Your task to perform on an android device: turn off sleep mode Image 0: 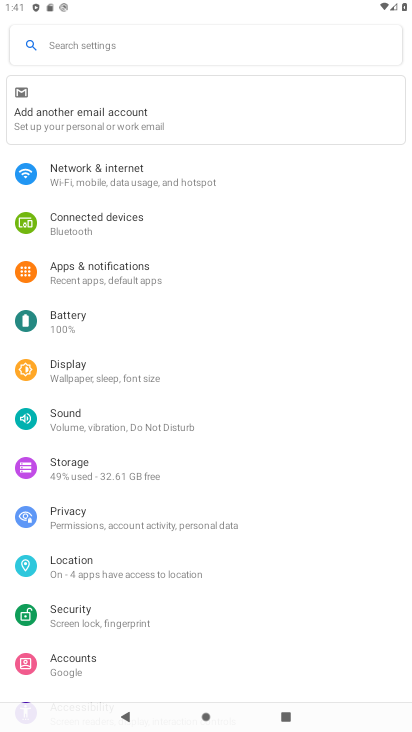
Step 0: drag from (190, 629) to (211, 195)
Your task to perform on an android device: turn off sleep mode Image 1: 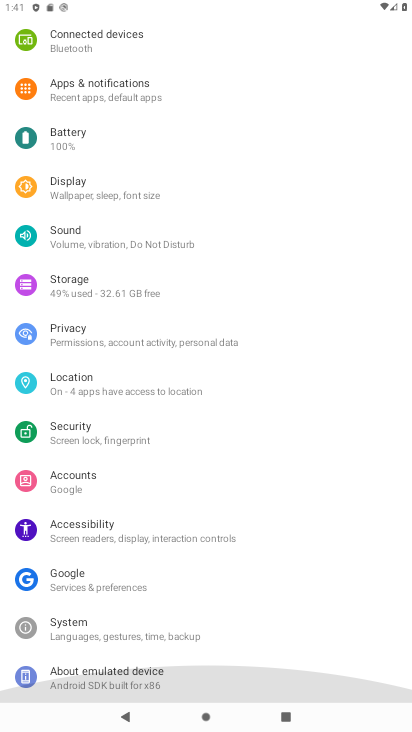
Step 1: drag from (211, 225) to (265, 706)
Your task to perform on an android device: turn off sleep mode Image 2: 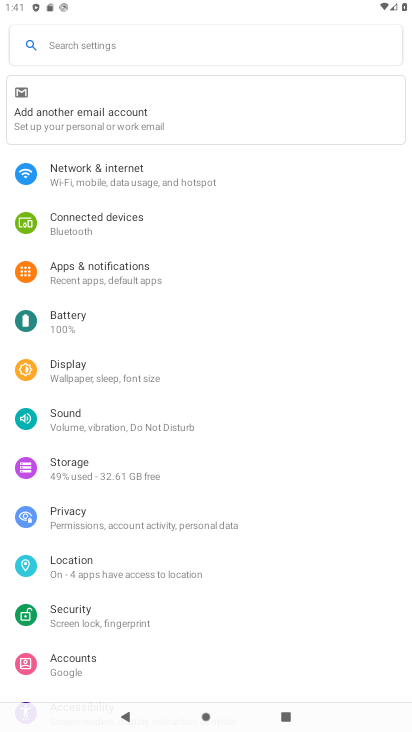
Step 2: drag from (153, 634) to (207, 312)
Your task to perform on an android device: turn off sleep mode Image 3: 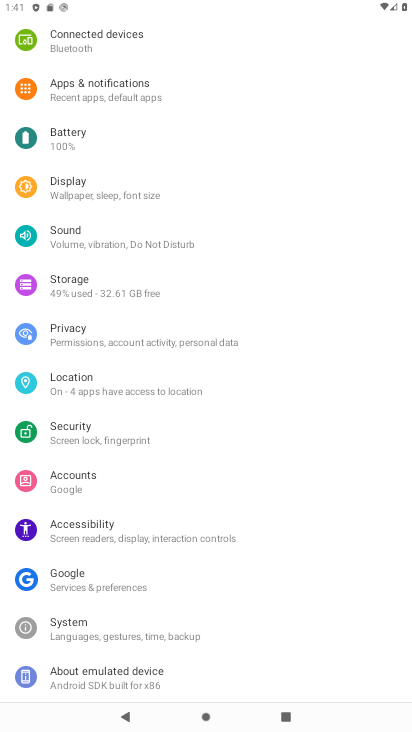
Step 3: drag from (201, 192) to (251, 729)
Your task to perform on an android device: turn off sleep mode Image 4: 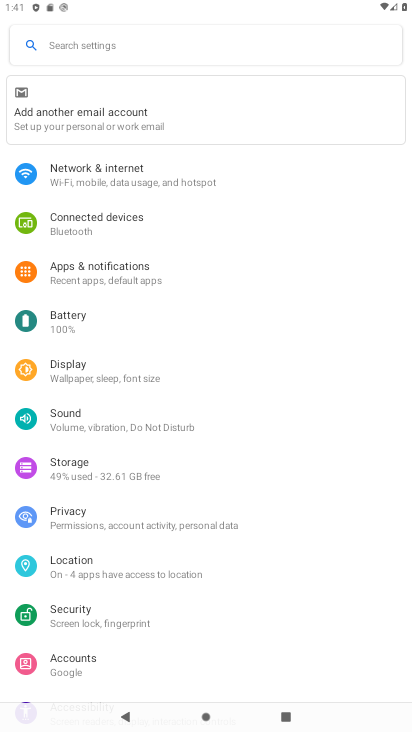
Step 4: drag from (167, 501) to (251, 127)
Your task to perform on an android device: turn off sleep mode Image 5: 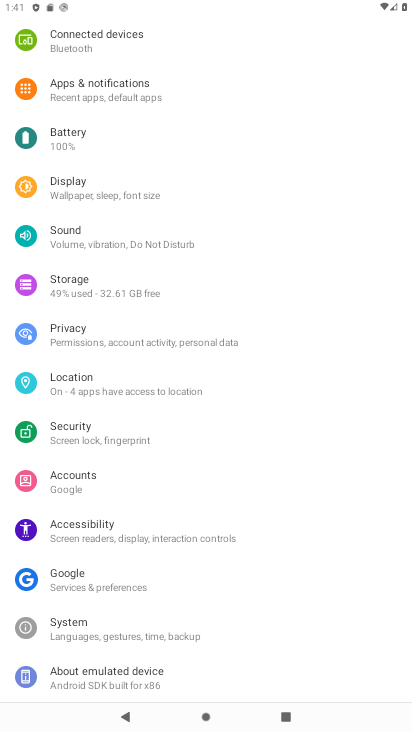
Step 5: click (96, 182)
Your task to perform on an android device: turn off sleep mode Image 6: 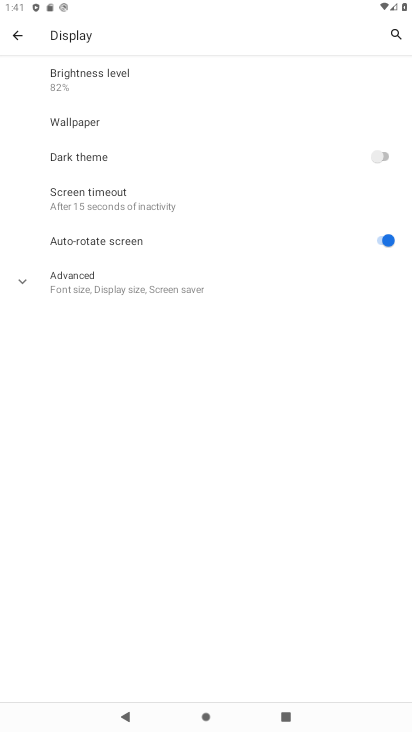
Step 6: click (108, 198)
Your task to perform on an android device: turn off sleep mode Image 7: 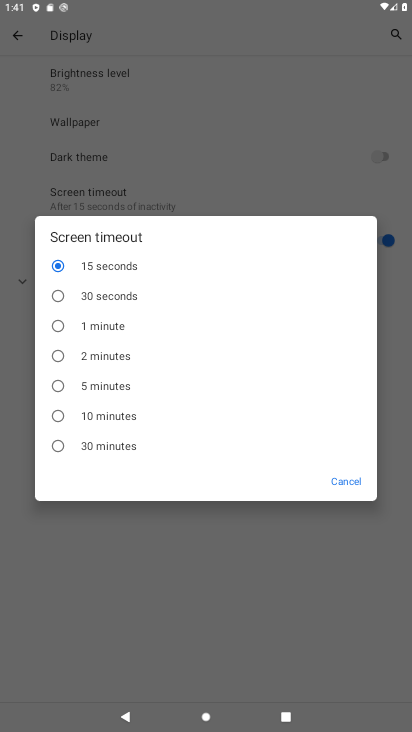
Step 7: task complete